Your task to perform on an android device: Go to display settings Image 0: 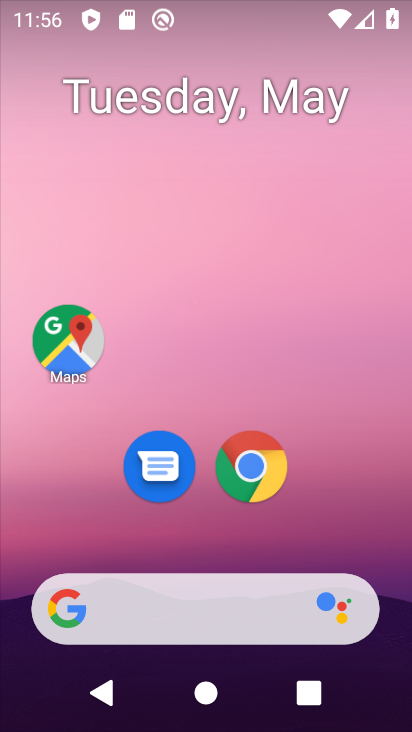
Step 0: drag from (205, 543) to (201, 95)
Your task to perform on an android device: Go to display settings Image 1: 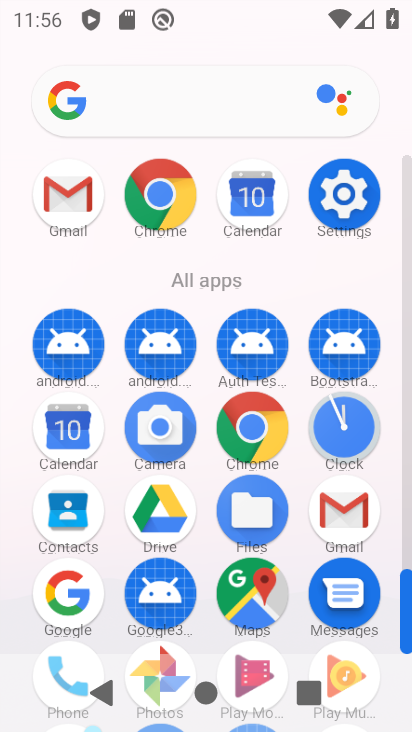
Step 1: click (344, 189)
Your task to perform on an android device: Go to display settings Image 2: 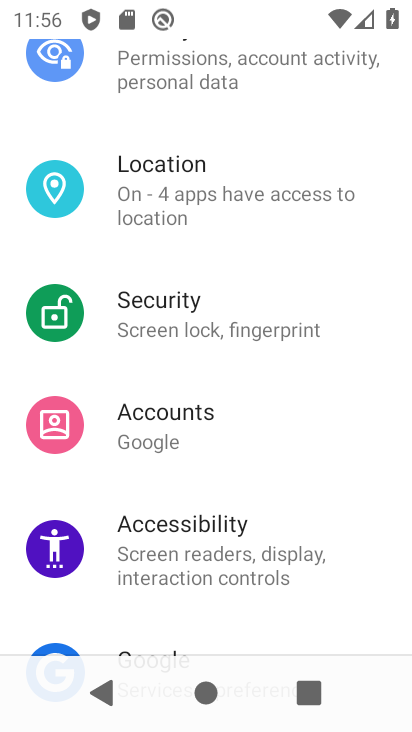
Step 2: drag from (195, 138) to (179, 570)
Your task to perform on an android device: Go to display settings Image 3: 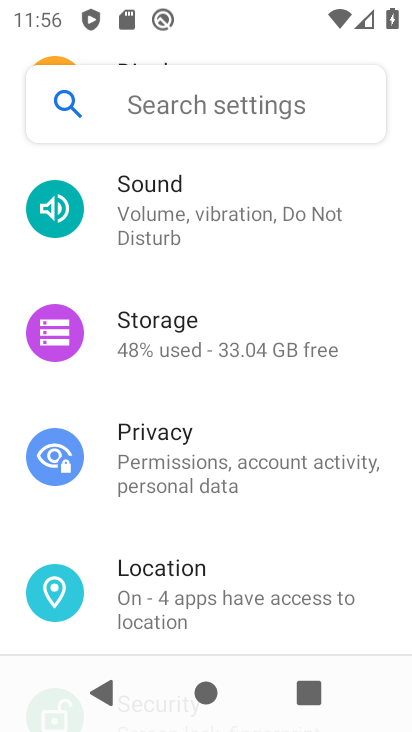
Step 3: drag from (178, 188) to (184, 556)
Your task to perform on an android device: Go to display settings Image 4: 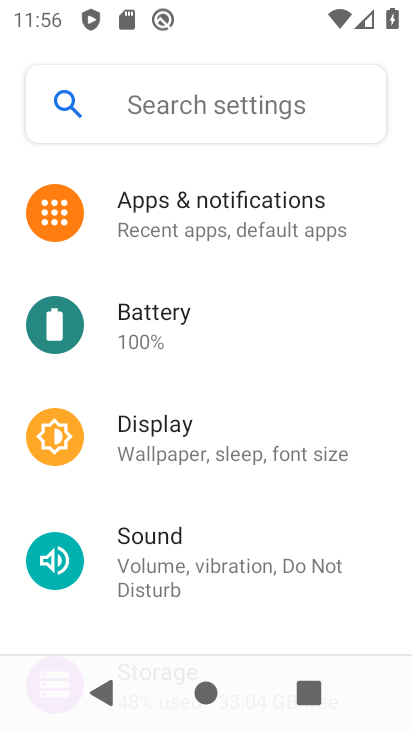
Step 4: click (103, 435)
Your task to perform on an android device: Go to display settings Image 5: 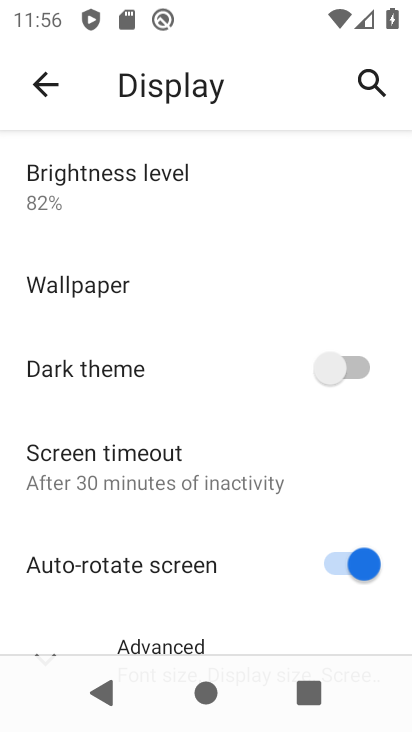
Step 5: drag from (224, 536) to (206, 305)
Your task to perform on an android device: Go to display settings Image 6: 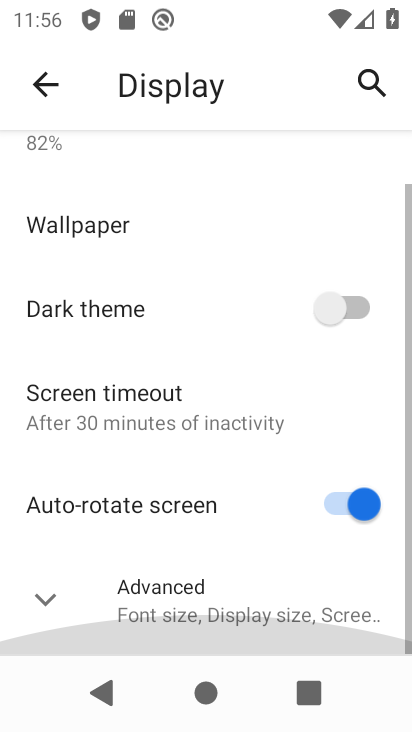
Step 6: click (206, 262)
Your task to perform on an android device: Go to display settings Image 7: 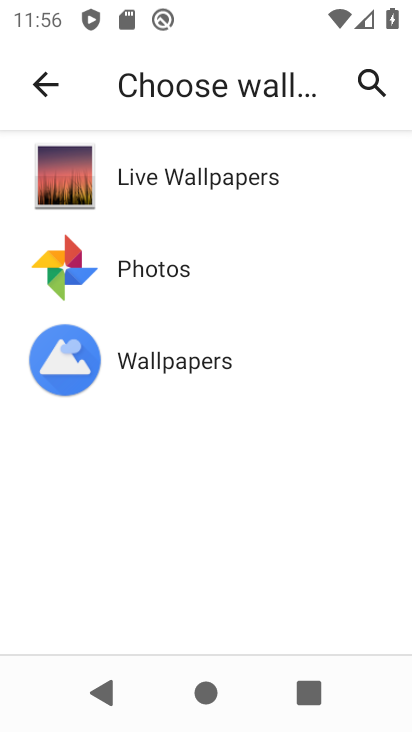
Step 7: click (47, 601)
Your task to perform on an android device: Go to display settings Image 8: 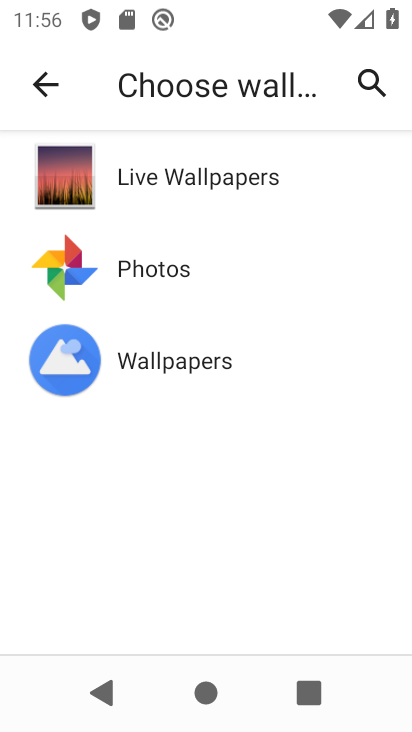
Step 8: task complete